Your task to perform on an android device: toggle data saver in the chrome app Image 0: 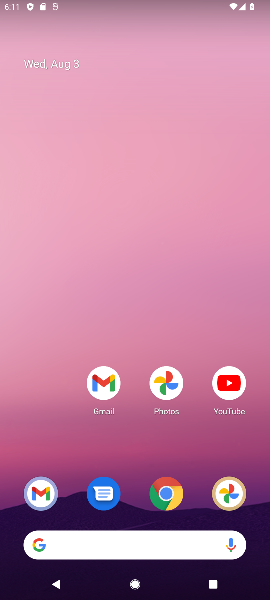
Step 0: click (164, 493)
Your task to perform on an android device: toggle data saver in the chrome app Image 1: 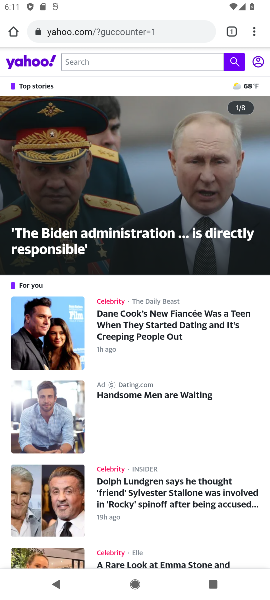
Step 1: click (253, 31)
Your task to perform on an android device: toggle data saver in the chrome app Image 2: 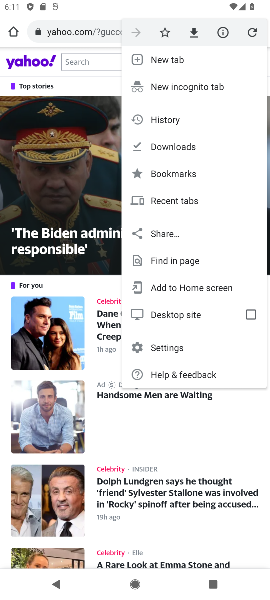
Step 2: click (162, 348)
Your task to perform on an android device: toggle data saver in the chrome app Image 3: 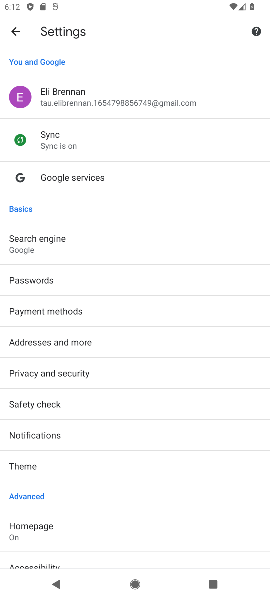
Step 3: drag from (88, 521) to (80, 307)
Your task to perform on an android device: toggle data saver in the chrome app Image 4: 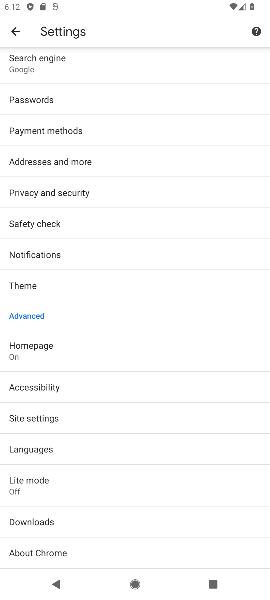
Step 4: click (30, 482)
Your task to perform on an android device: toggle data saver in the chrome app Image 5: 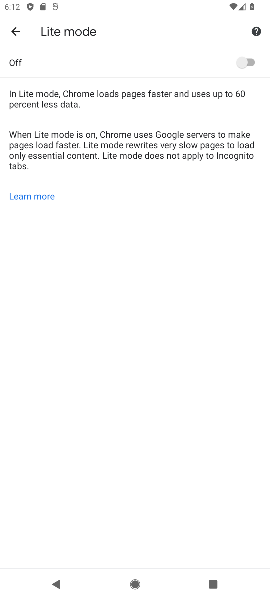
Step 5: task complete